Your task to perform on an android device: Open sound settings Image 0: 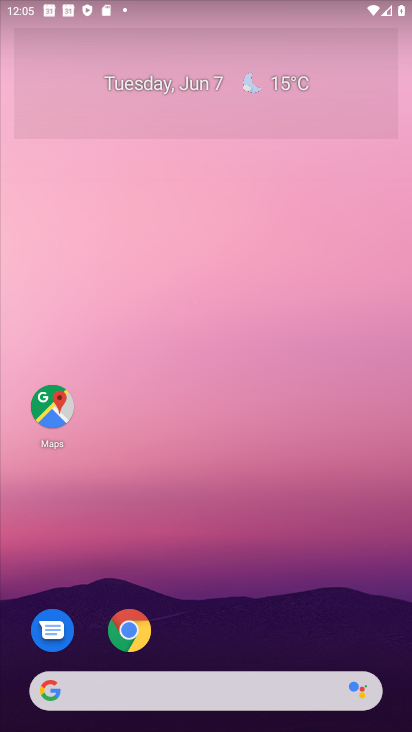
Step 0: drag from (321, 630) to (319, 163)
Your task to perform on an android device: Open sound settings Image 1: 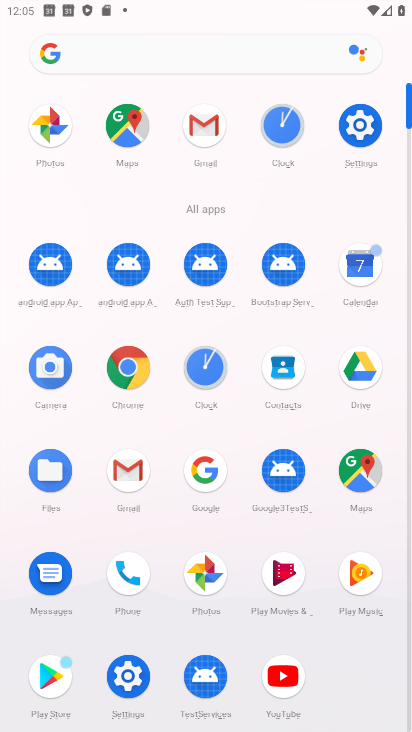
Step 1: click (116, 661)
Your task to perform on an android device: Open sound settings Image 2: 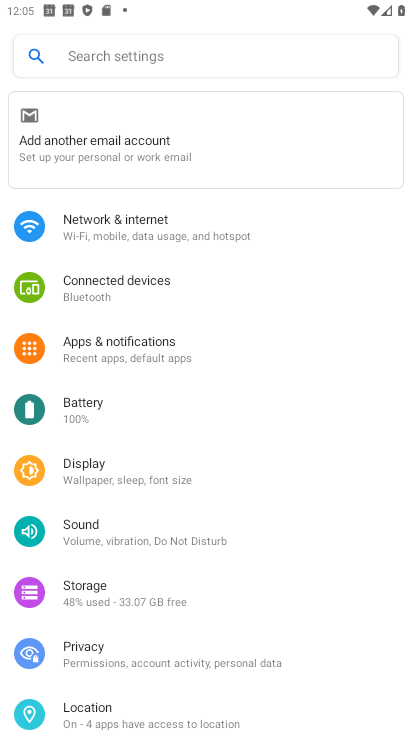
Step 2: drag from (324, 652) to (324, 300)
Your task to perform on an android device: Open sound settings Image 3: 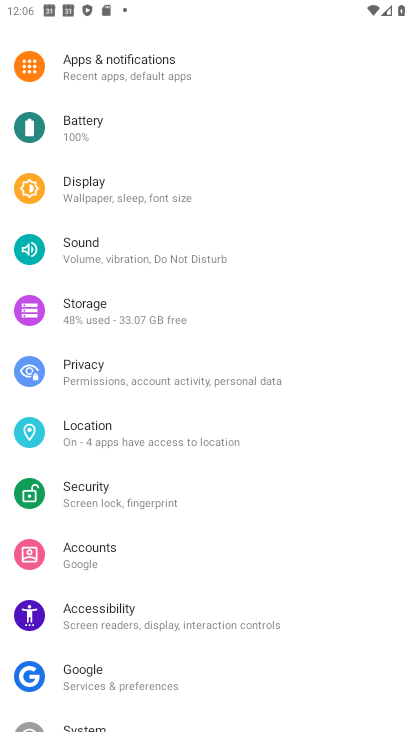
Step 3: drag from (143, 593) to (205, 320)
Your task to perform on an android device: Open sound settings Image 4: 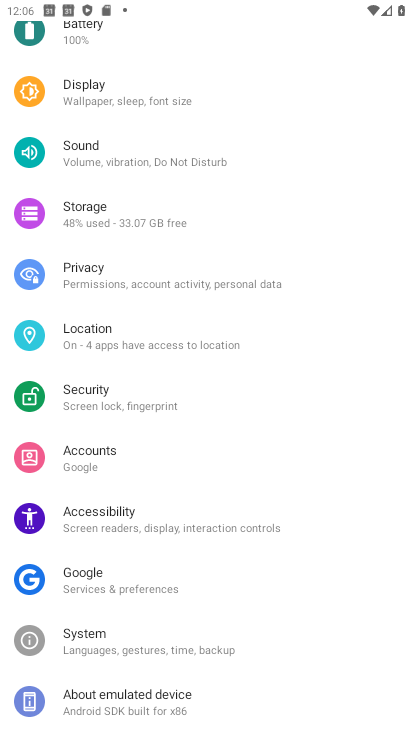
Step 4: click (118, 154)
Your task to perform on an android device: Open sound settings Image 5: 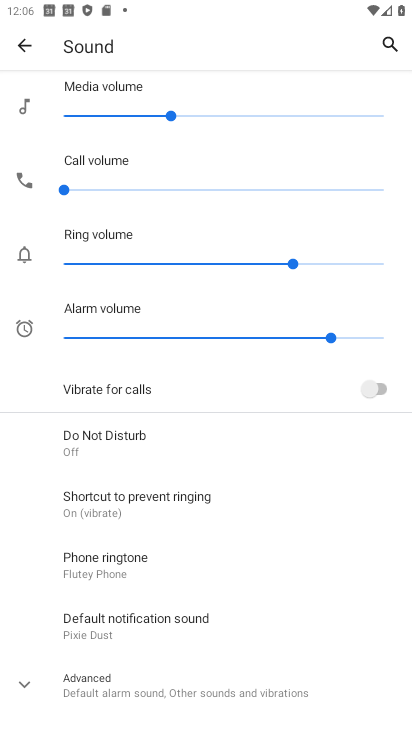
Step 5: task complete